Your task to perform on an android device: change your default location settings in chrome Image 0: 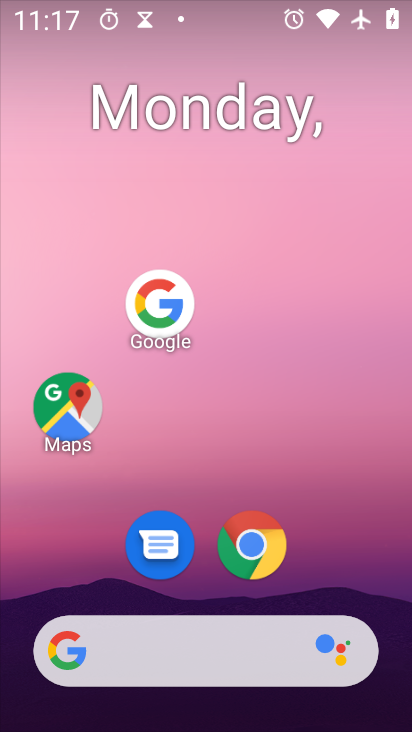
Step 0: press home button
Your task to perform on an android device: change your default location settings in chrome Image 1: 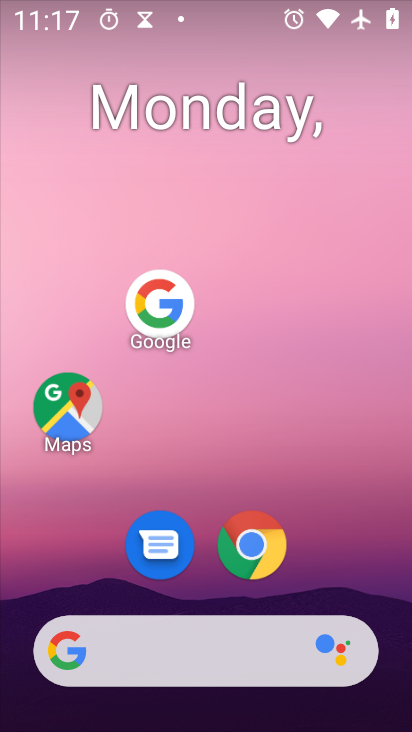
Step 1: click (244, 565)
Your task to perform on an android device: change your default location settings in chrome Image 2: 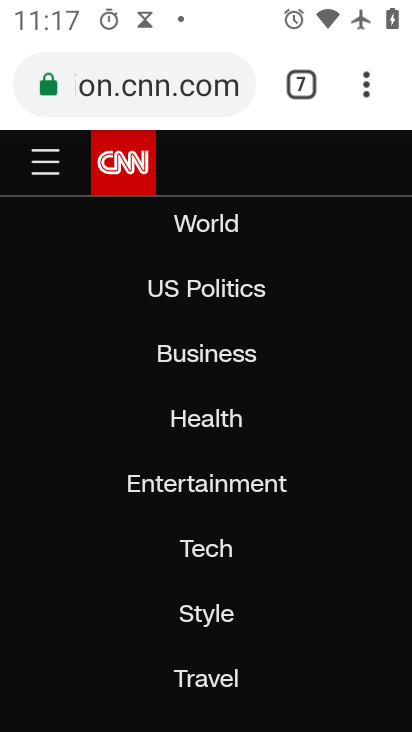
Step 2: drag from (365, 91) to (222, 602)
Your task to perform on an android device: change your default location settings in chrome Image 3: 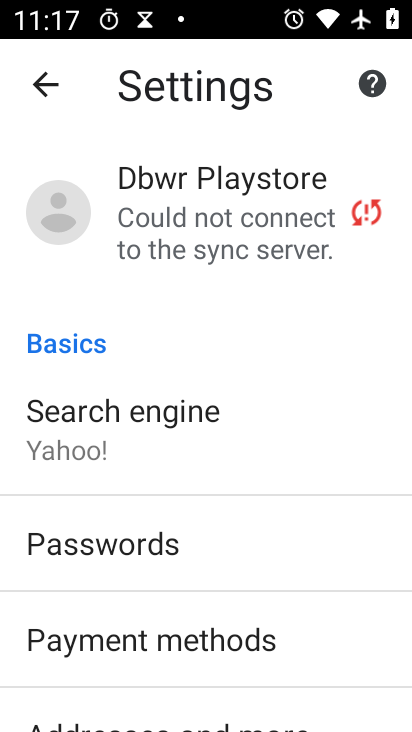
Step 3: drag from (188, 626) to (220, 359)
Your task to perform on an android device: change your default location settings in chrome Image 4: 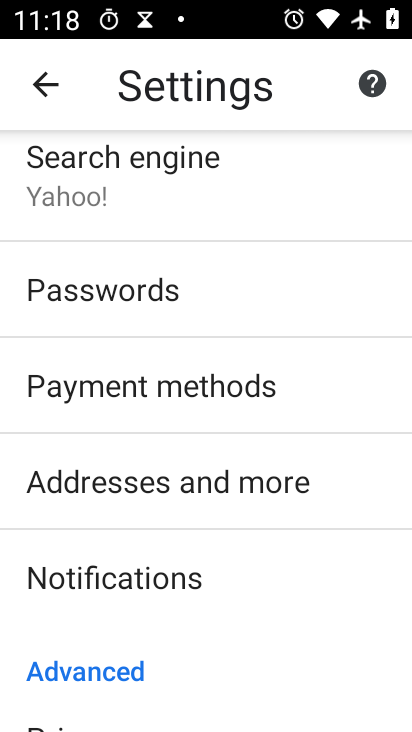
Step 4: drag from (220, 637) to (313, 131)
Your task to perform on an android device: change your default location settings in chrome Image 5: 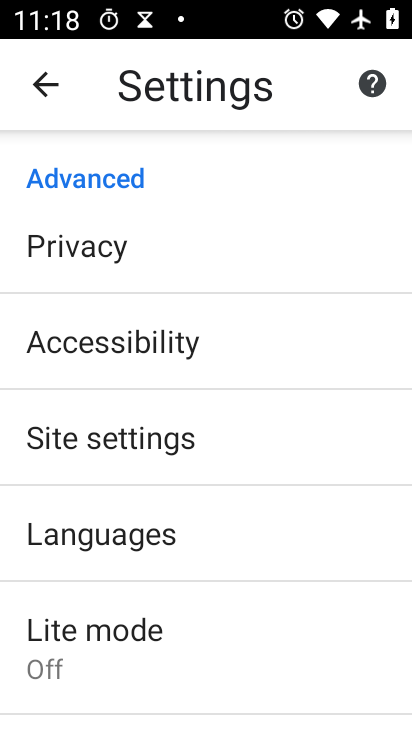
Step 5: click (146, 453)
Your task to perform on an android device: change your default location settings in chrome Image 6: 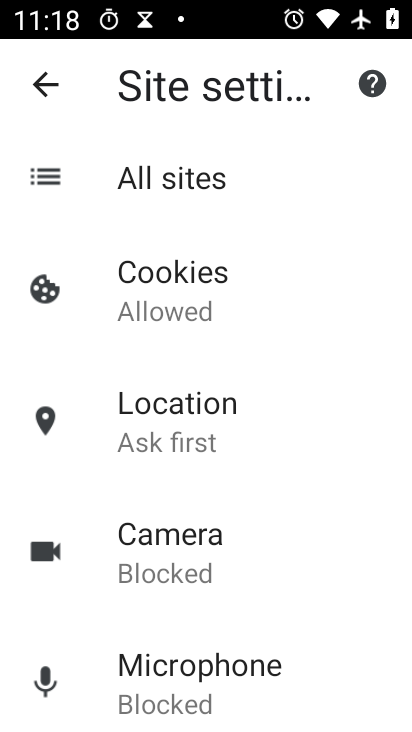
Step 6: click (194, 417)
Your task to perform on an android device: change your default location settings in chrome Image 7: 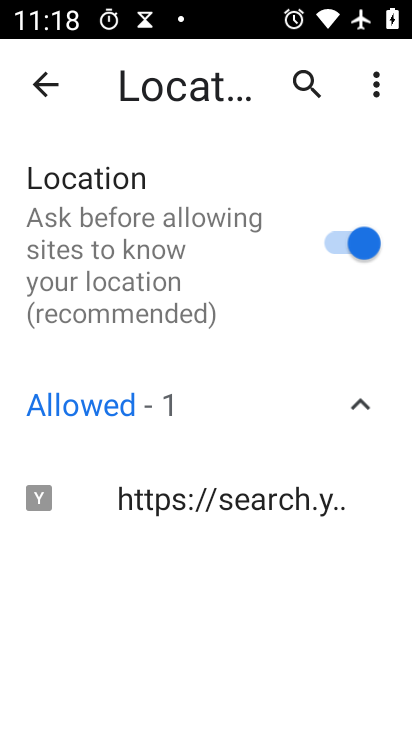
Step 7: click (339, 248)
Your task to perform on an android device: change your default location settings in chrome Image 8: 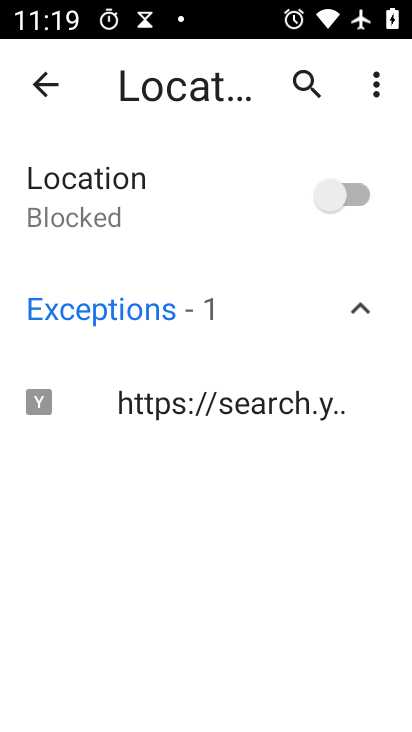
Step 8: task complete